Your task to perform on an android device: Open location settings Image 0: 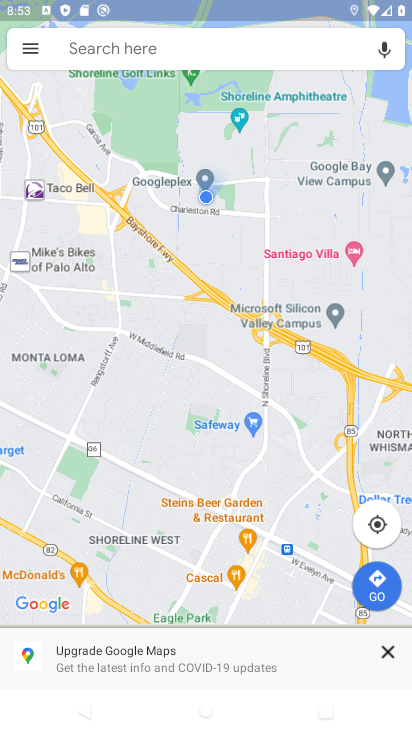
Step 0: press home button
Your task to perform on an android device: Open location settings Image 1: 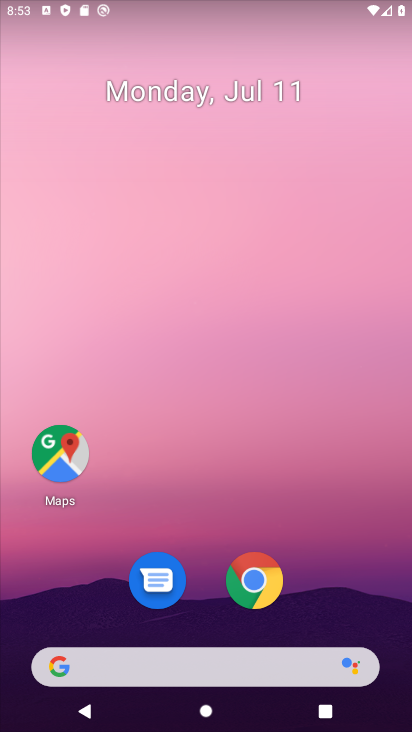
Step 1: drag from (279, 374) to (268, 25)
Your task to perform on an android device: Open location settings Image 2: 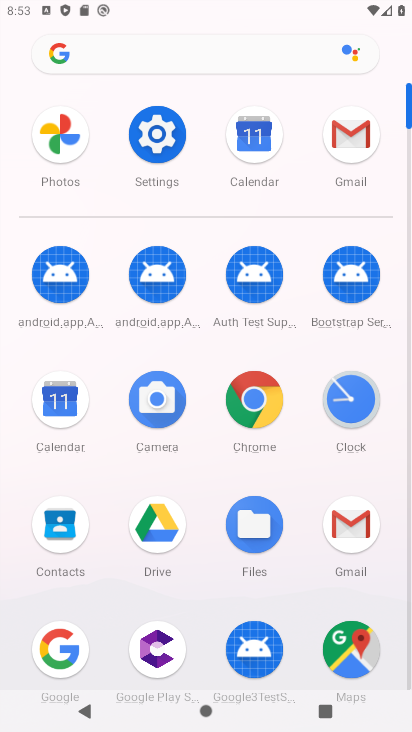
Step 2: click (176, 144)
Your task to perform on an android device: Open location settings Image 3: 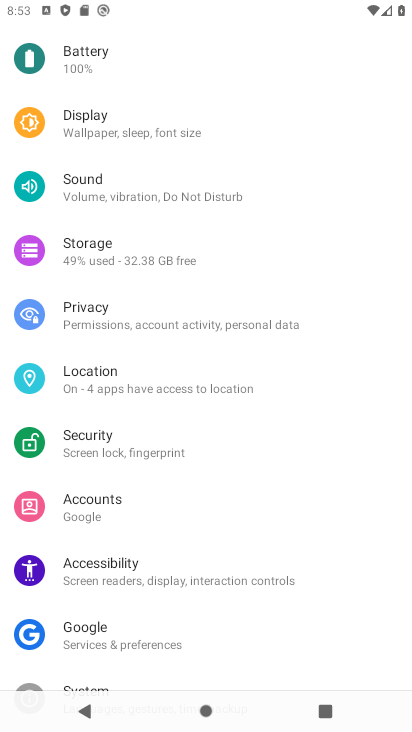
Step 3: click (162, 385)
Your task to perform on an android device: Open location settings Image 4: 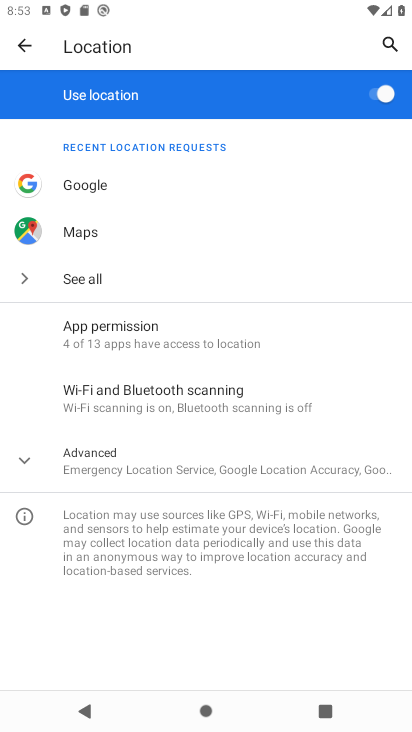
Step 4: task complete